Your task to perform on an android device: Open location settings Image 0: 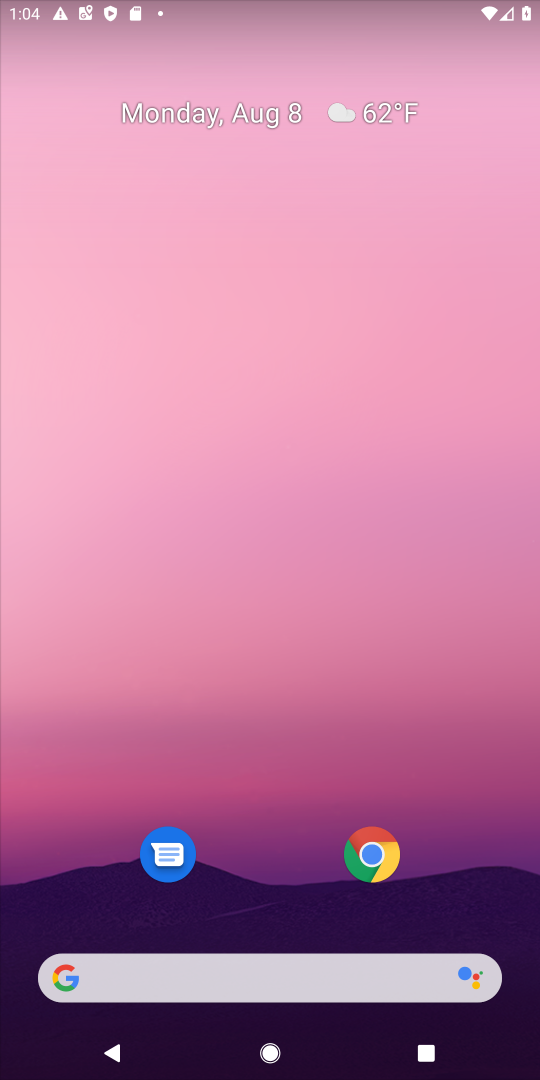
Step 0: press home button
Your task to perform on an android device: Open location settings Image 1: 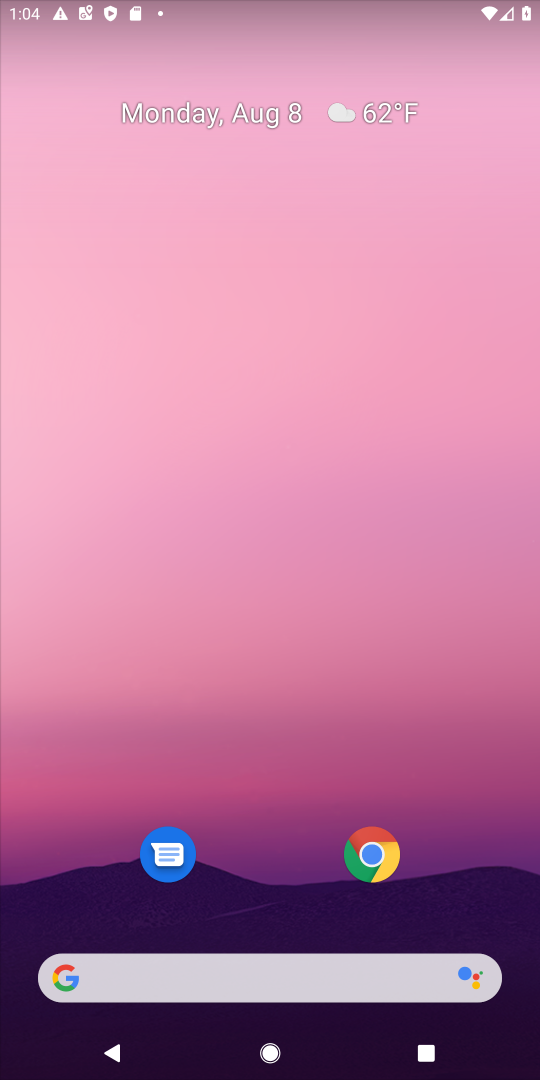
Step 1: drag from (281, 868) to (323, 126)
Your task to perform on an android device: Open location settings Image 2: 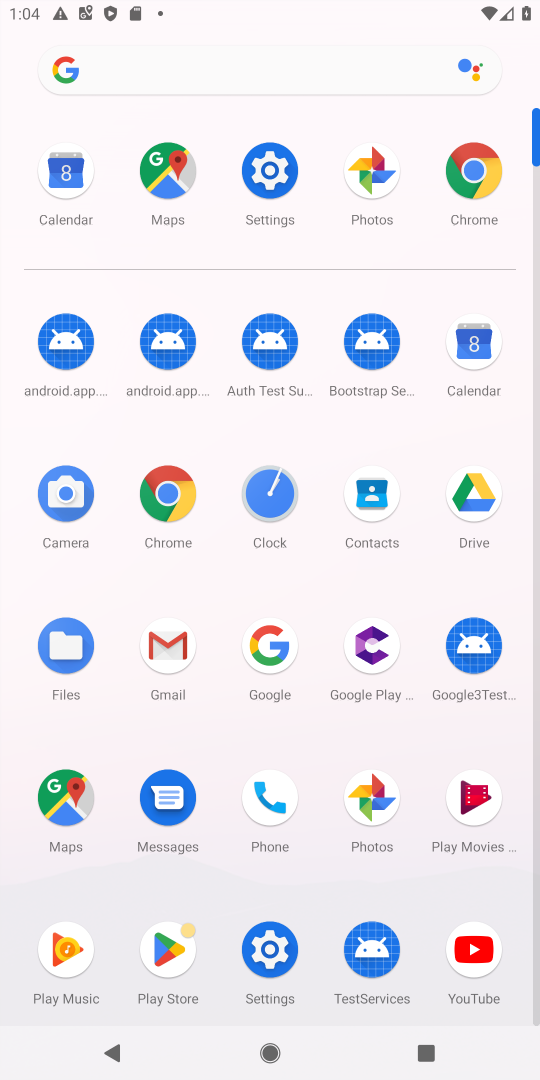
Step 2: click (268, 158)
Your task to perform on an android device: Open location settings Image 3: 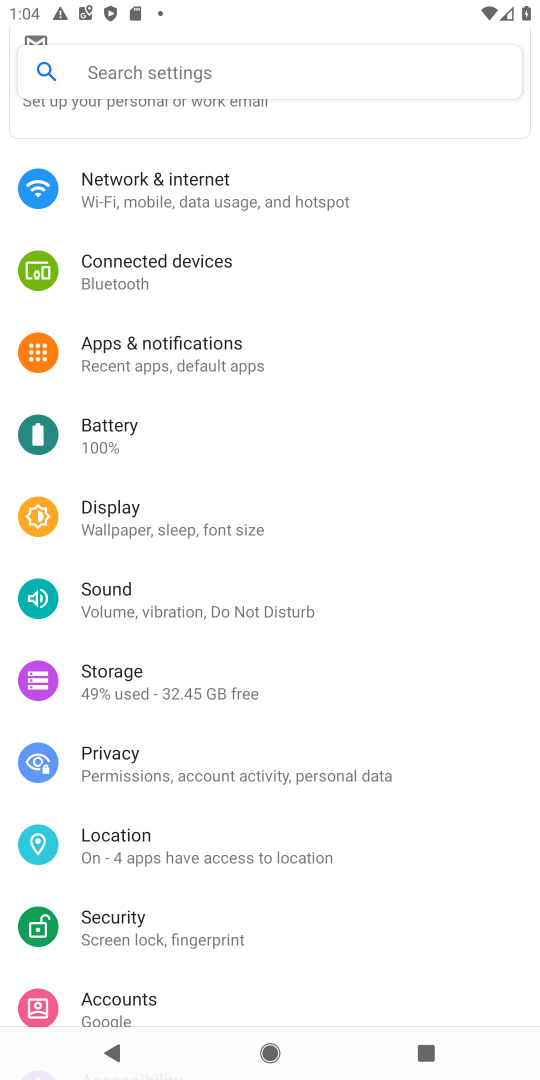
Step 3: click (131, 836)
Your task to perform on an android device: Open location settings Image 4: 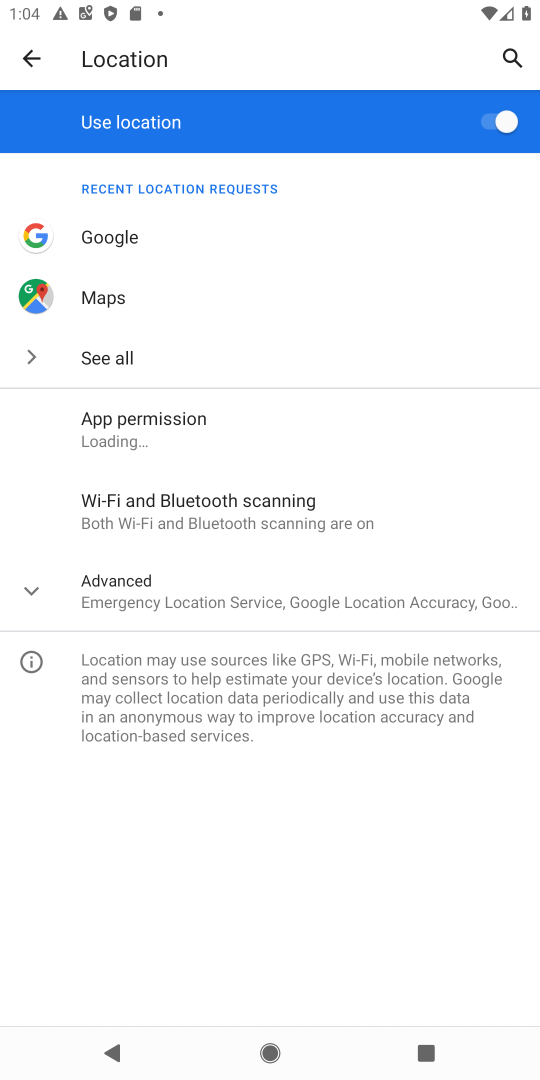
Step 4: task complete